Your task to perform on an android device: open app "YouTube Kids" (install if not already installed) Image 0: 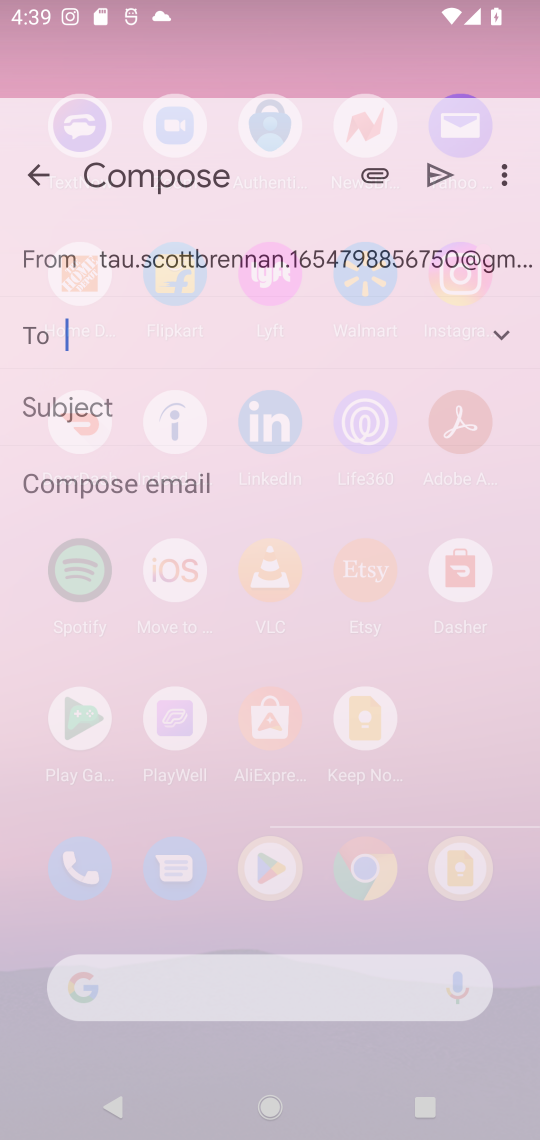
Step 0: press home button
Your task to perform on an android device: open app "YouTube Kids" (install if not already installed) Image 1: 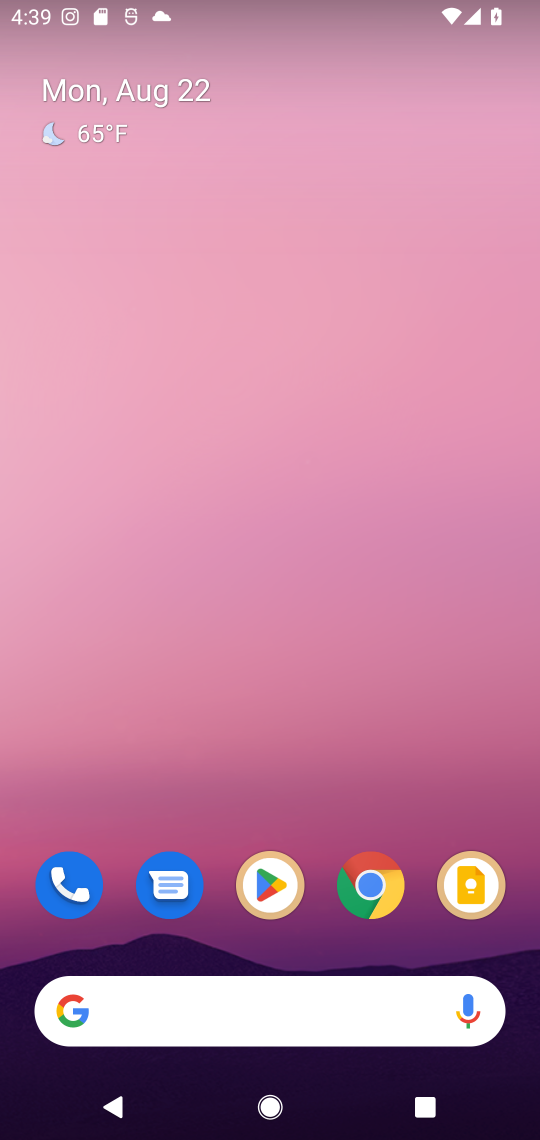
Step 1: drag from (315, 812) to (346, 3)
Your task to perform on an android device: open app "YouTube Kids" (install if not already installed) Image 2: 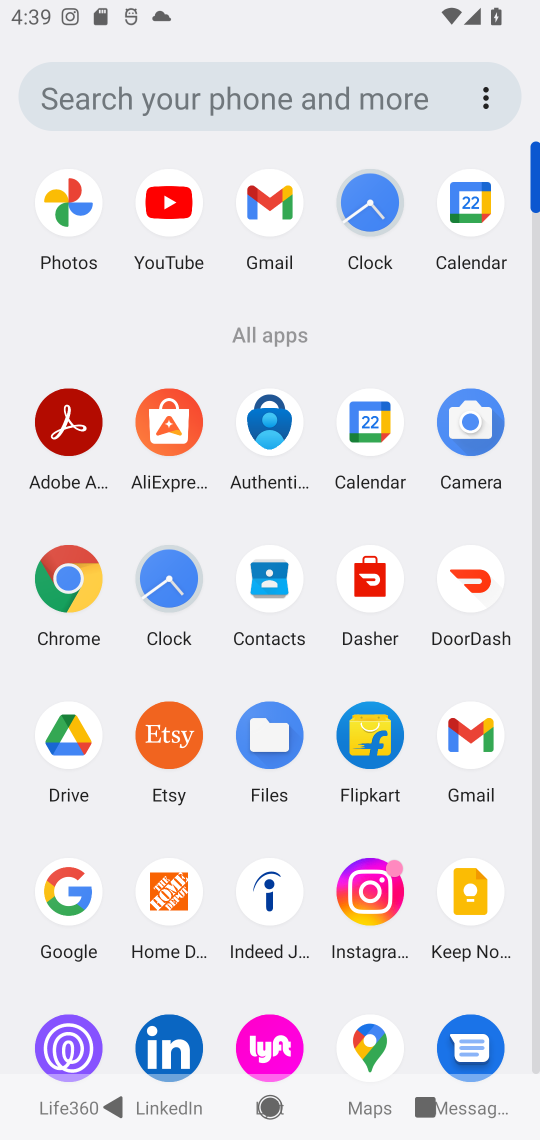
Step 2: drag from (311, 785) to (351, 103)
Your task to perform on an android device: open app "YouTube Kids" (install if not already installed) Image 3: 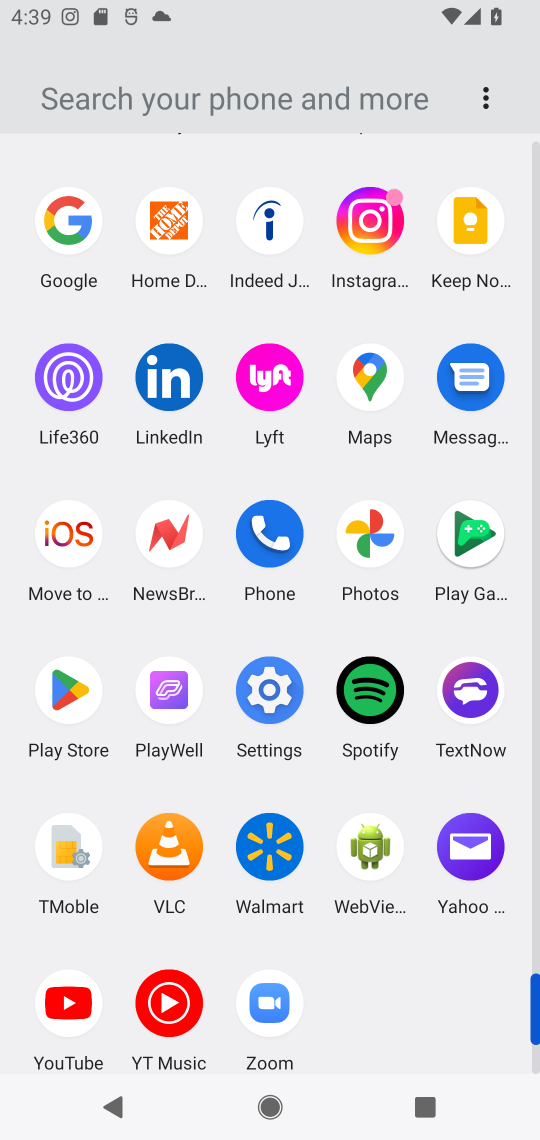
Step 3: click (61, 682)
Your task to perform on an android device: open app "YouTube Kids" (install if not already installed) Image 4: 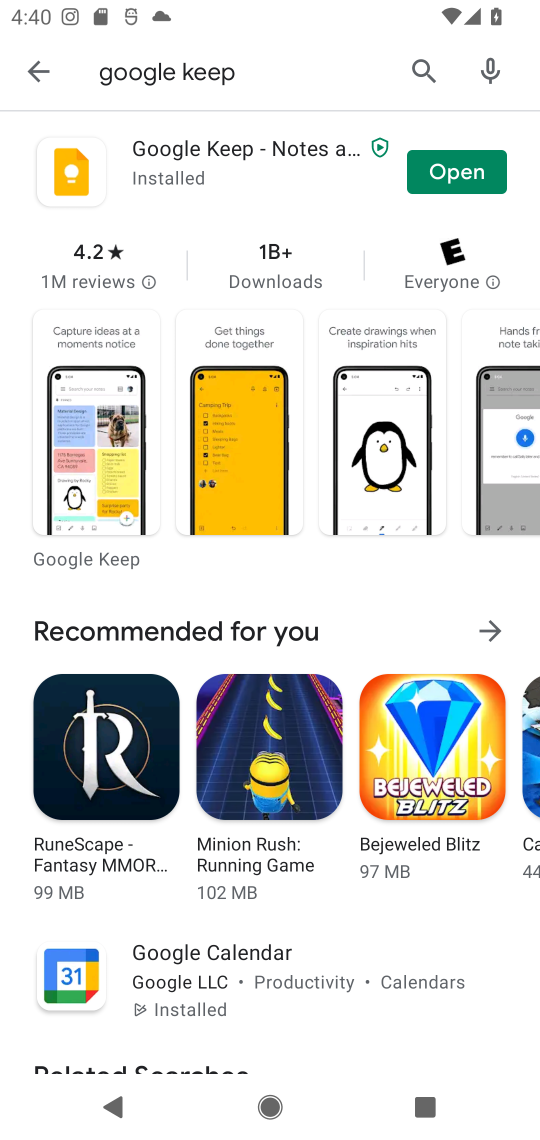
Step 4: click (426, 59)
Your task to perform on an android device: open app "YouTube Kids" (install if not already installed) Image 5: 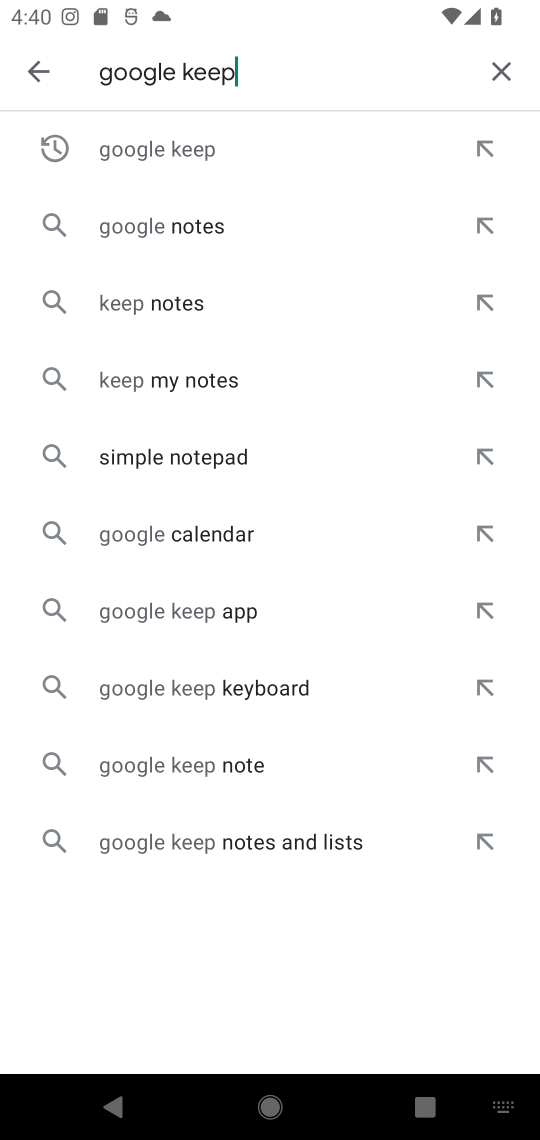
Step 5: click (497, 78)
Your task to perform on an android device: open app "YouTube Kids" (install if not already installed) Image 6: 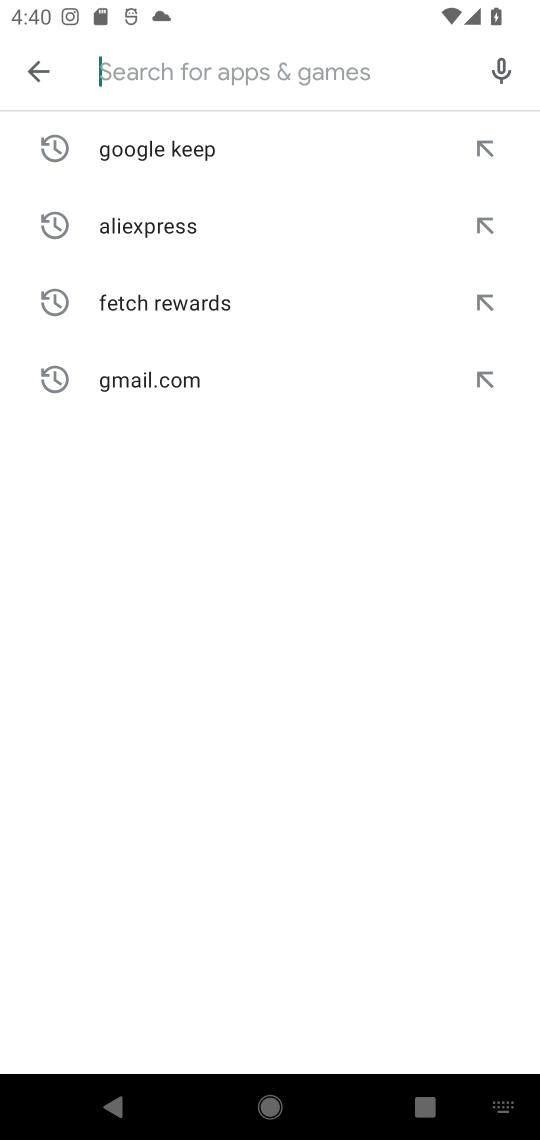
Step 6: type "YouTube Kids"
Your task to perform on an android device: open app "YouTube Kids" (install if not already installed) Image 7: 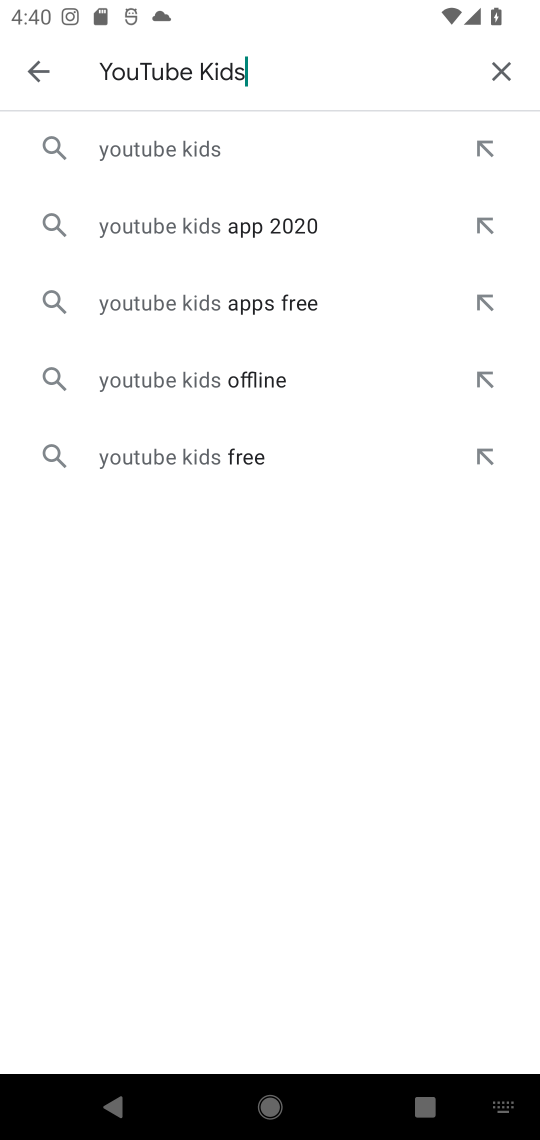
Step 7: click (207, 167)
Your task to perform on an android device: open app "YouTube Kids" (install if not already installed) Image 8: 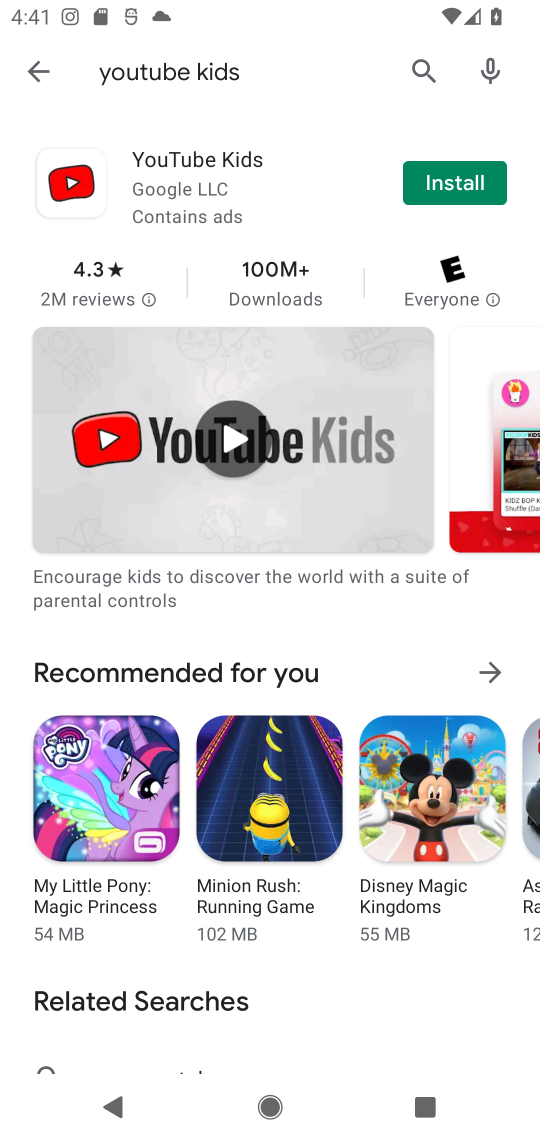
Step 8: click (456, 181)
Your task to perform on an android device: open app "YouTube Kids" (install if not already installed) Image 9: 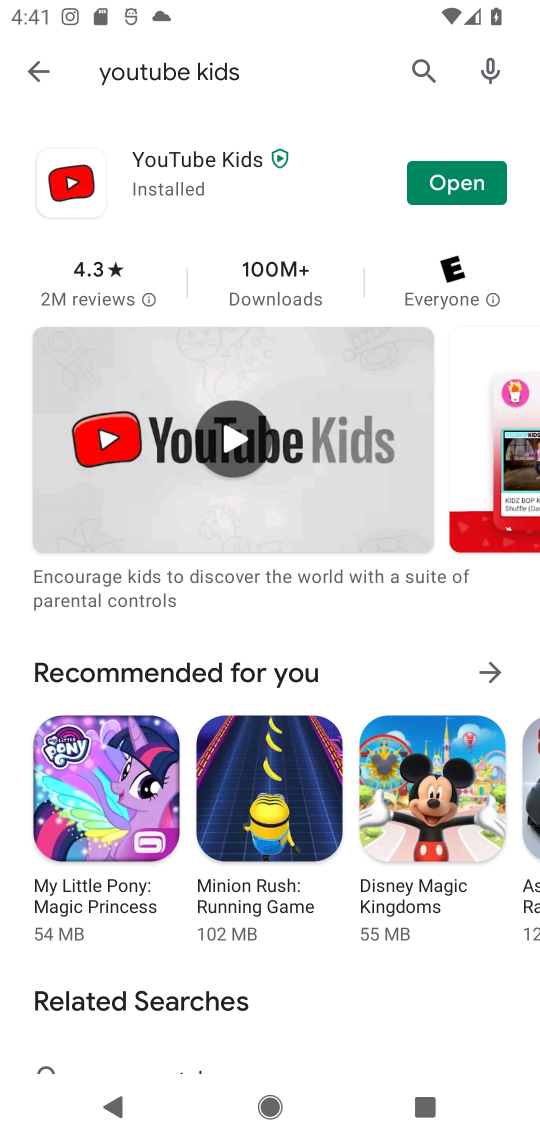
Step 9: click (443, 173)
Your task to perform on an android device: open app "YouTube Kids" (install if not already installed) Image 10: 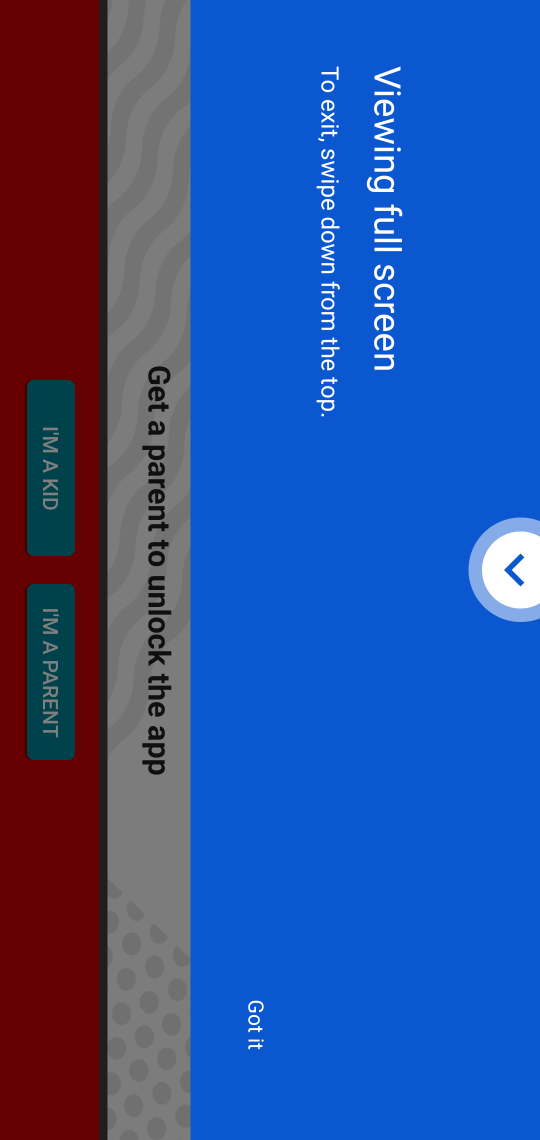
Step 10: task complete